Your task to perform on an android device: Open Google Chrome and click the shortcut for Amazon.com Image 0: 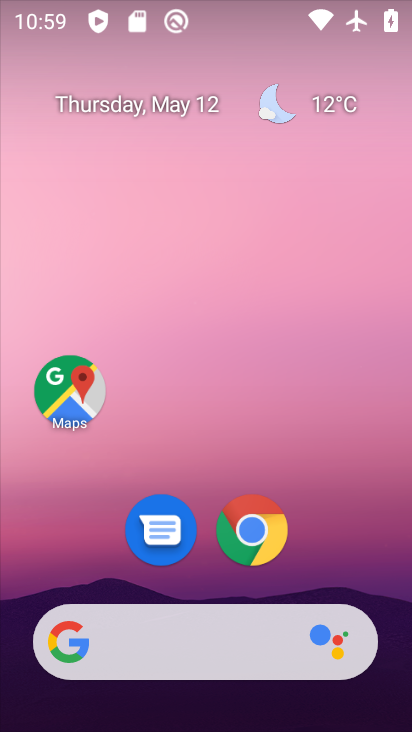
Step 0: click (256, 535)
Your task to perform on an android device: Open Google Chrome and click the shortcut for Amazon.com Image 1: 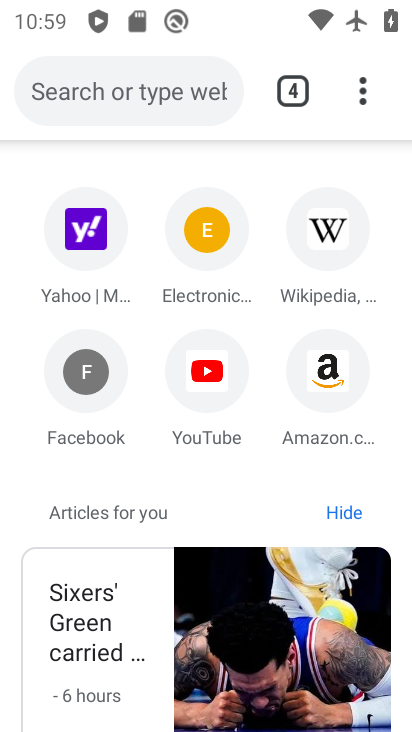
Step 1: click (325, 381)
Your task to perform on an android device: Open Google Chrome and click the shortcut for Amazon.com Image 2: 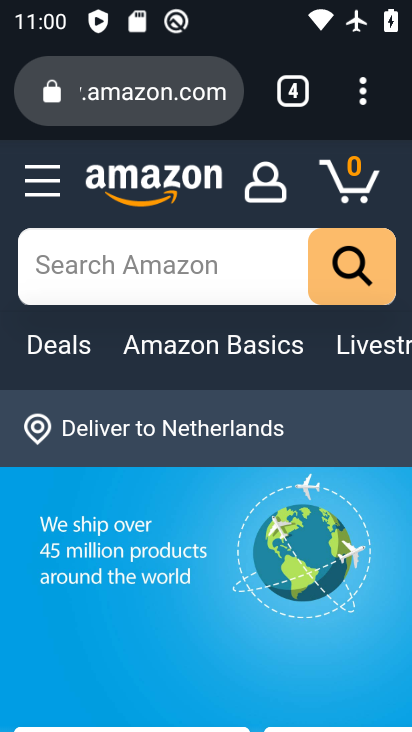
Step 2: task complete